Your task to perform on an android device: change keyboard looks Image 0: 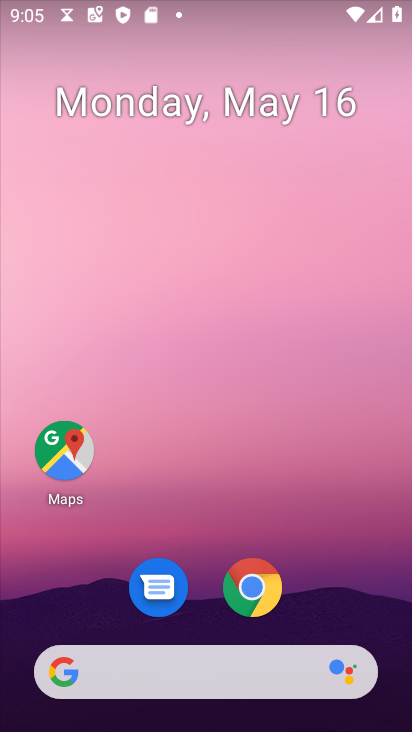
Step 0: drag from (339, 614) to (256, 267)
Your task to perform on an android device: change keyboard looks Image 1: 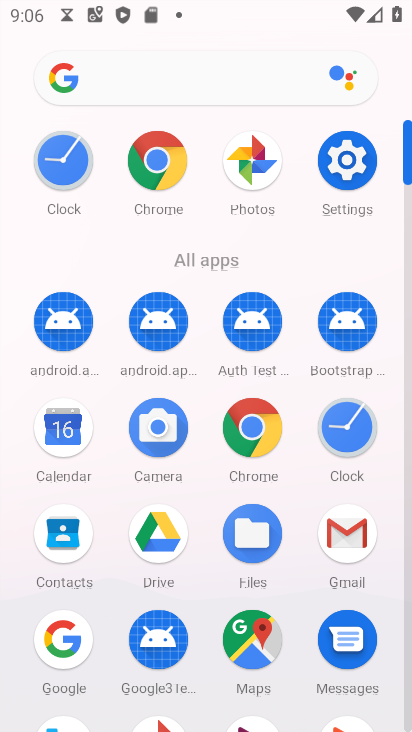
Step 1: click (354, 166)
Your task to perform on an android device: change keyboard looks Image 2: 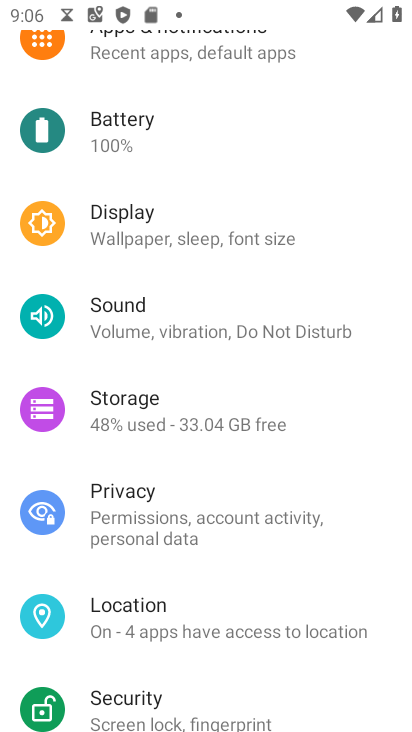
Step 2: drag from (258, 704) to (233, 403)
Your task to perform on an android device: change keyboard looks Image 3: 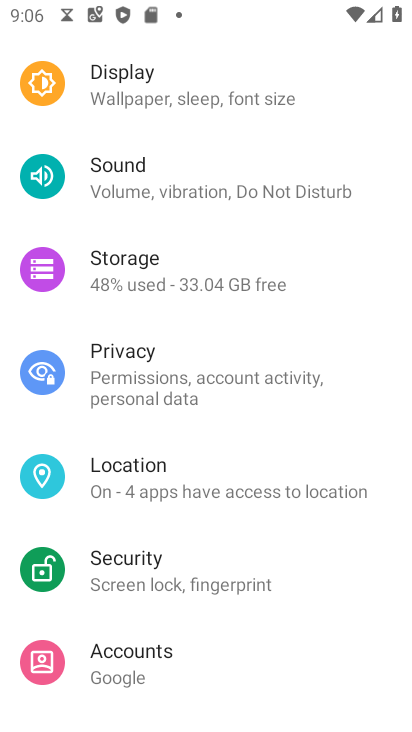
Step 3: drag from (223, 683) to (202, 406)
Your task to perform on an android device: change keyboard looks Image 4: 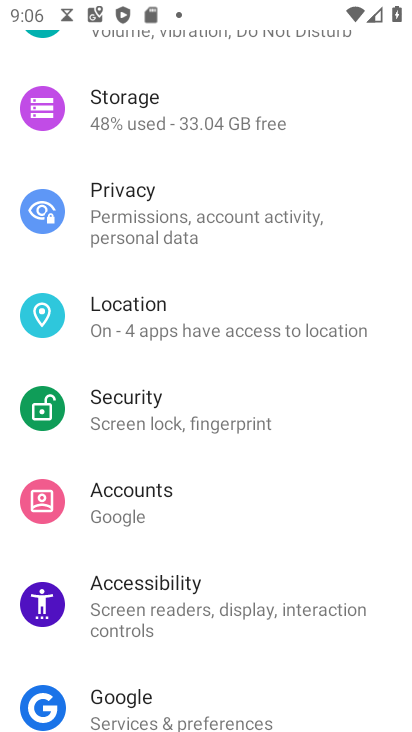
Step 4: drag from (221, 643) to (184, 373)
Your task to perform on an android device: change keyboard looks Image 5: 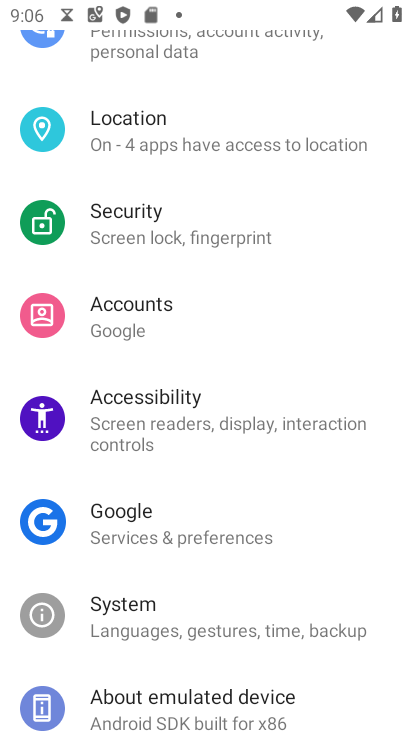
Step 5: click (258, 650)
Your task to perform on an android device: change keyboard looks Image 6: 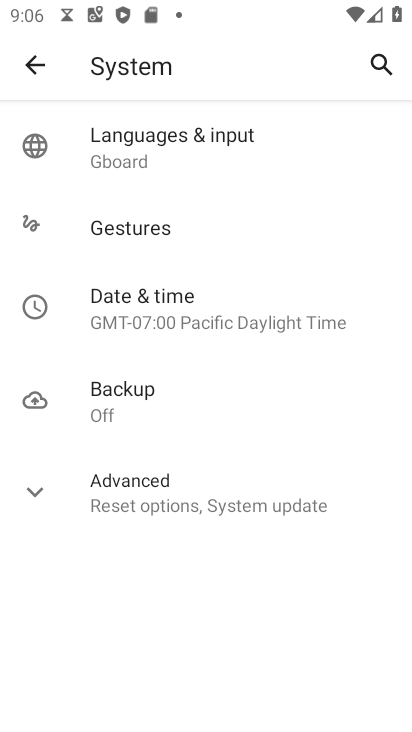
Step 6: click (197, 175)
Your task to perform on an android device: change keyboard looks Image 7: 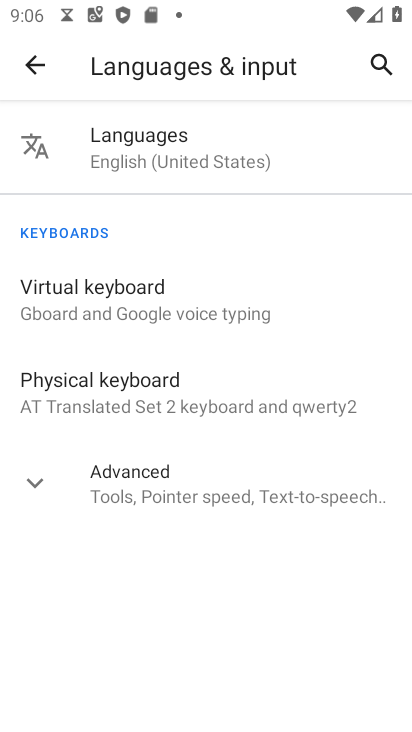
Step 7: click (203, 298)
Your task to perform on an android device: change keyboard looks Image 8: 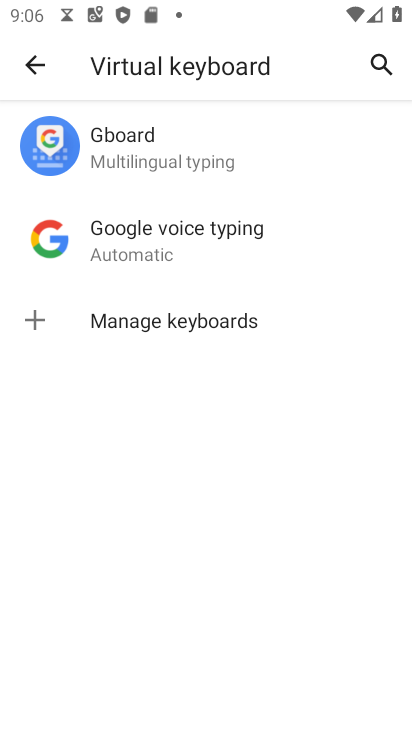
Step 8: click (192, 158)
Your task to perform on an android device: change keyboard looks Image 9: 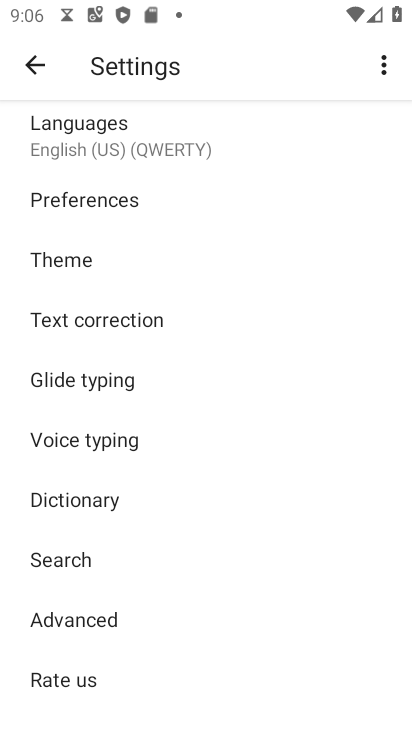
Step 9: click (191, 266)
Your task to perform on an android device: change keyboard looks Image 10: 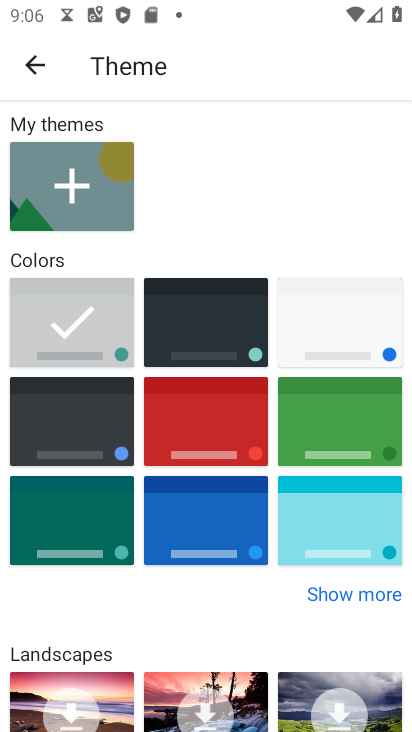
Step 10: click (179, 348)
Your task to perform on an android device: change keyboard looks Image 11: 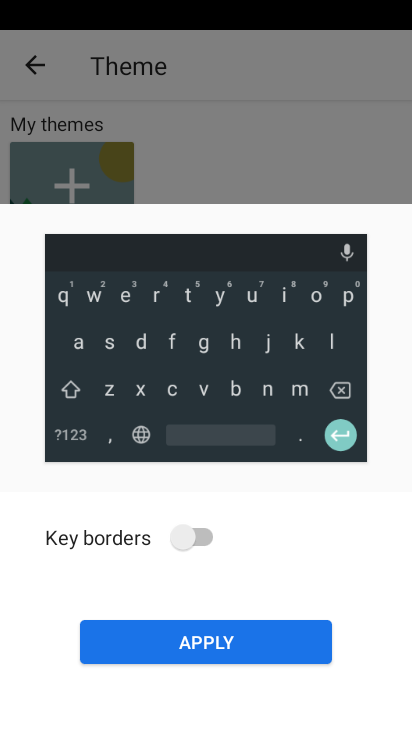
Step 11: click (243, 652)
Your task to perform on an android device: change keyboard looks Image 12: 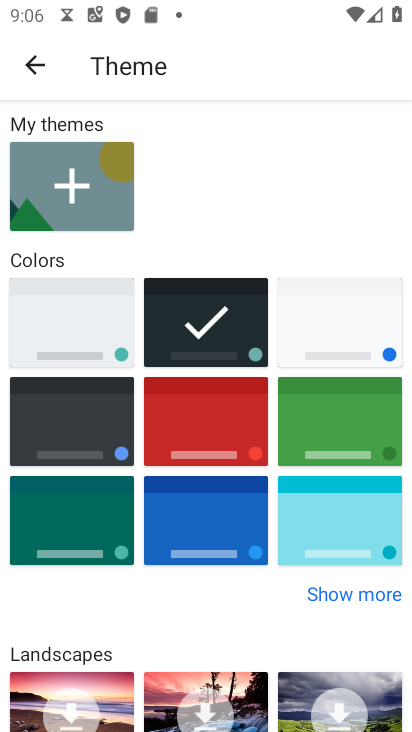
Step 12: task complete